Your task to perform on an android device: Check the weather Image 0: 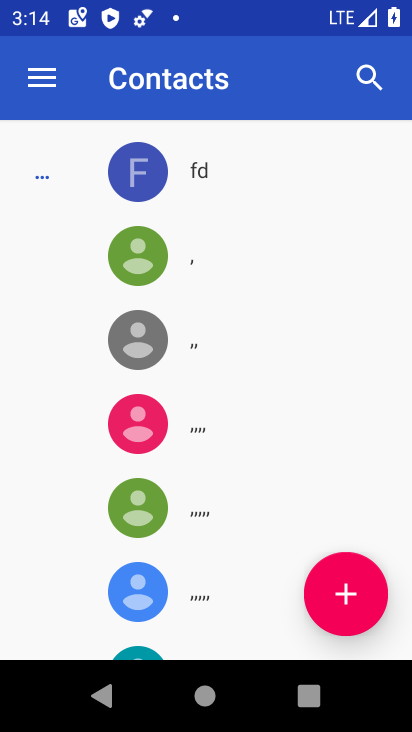
Step 0: press home button
Your task to perform on an android device: Check the weather Image 1: 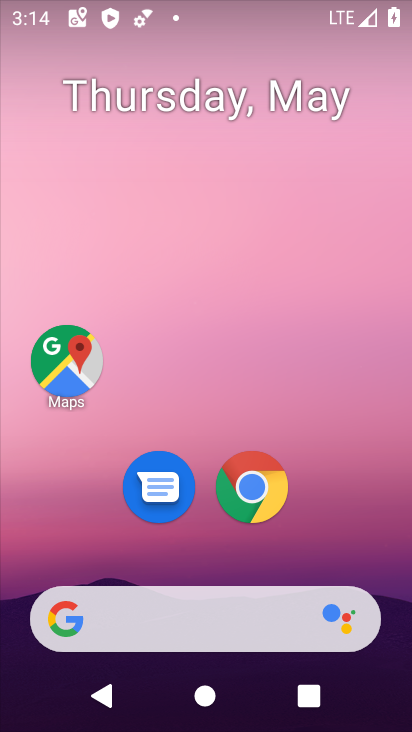
Step 1: drag from (180, 641) to (172, 327)
Your task to perform on an android device: Check the weather Image 2: 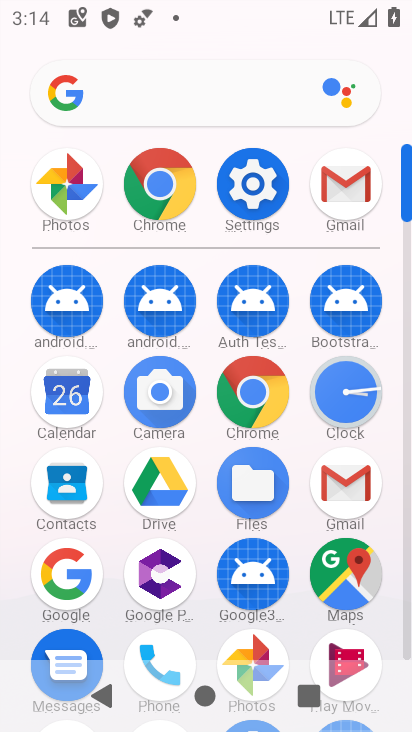
Step 2: click (71, 558)
Your task to perform on an android device: Check the weather Image 3: 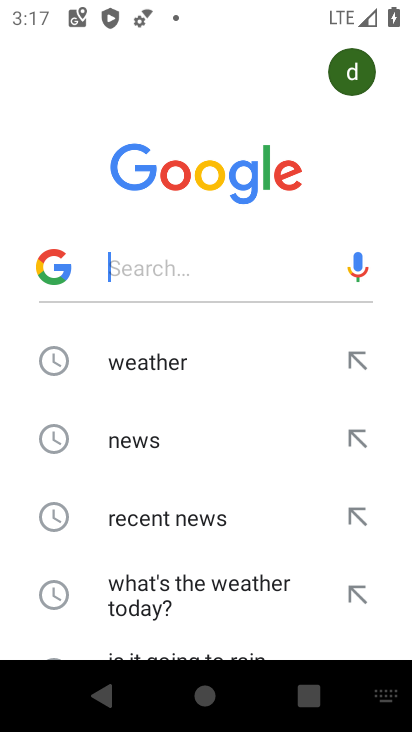
Step 3: click (173, 366)
Your task to perform on an android device: Check the weather Image 4: 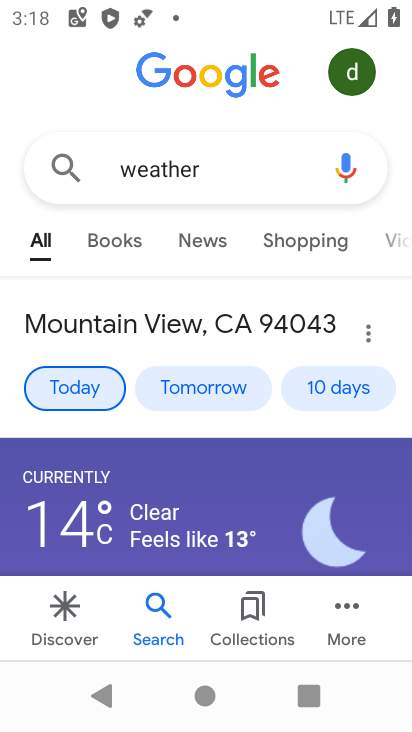
Step 4: task complete